Your task to perform on an android device: toggle translation in the chrome app Image 0: 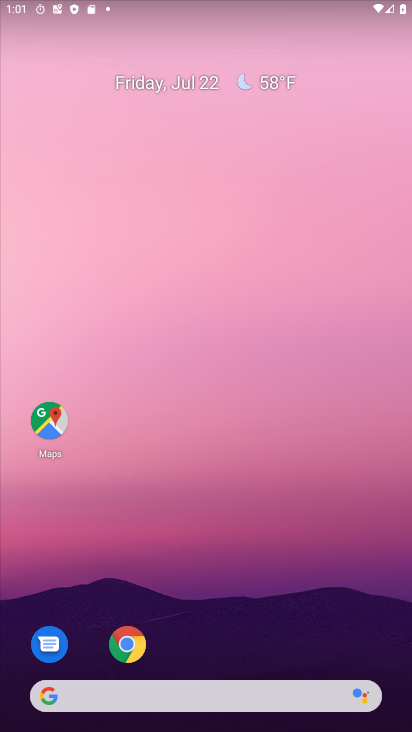
Step 0: drag from (181, 557) to (377, 134)
Your task to perform on an android device: toggle translation in the chrome app Image 1: 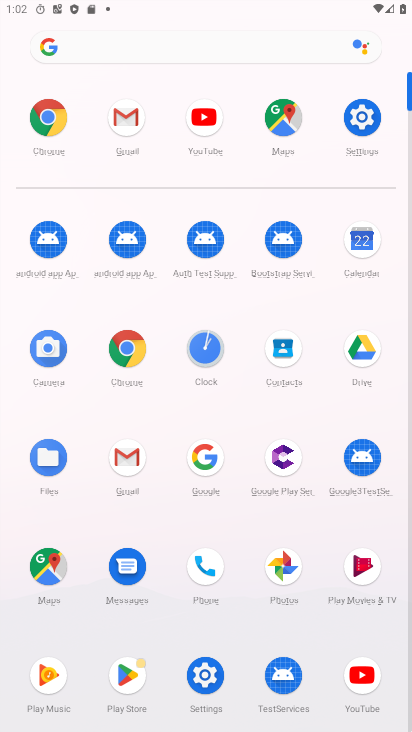
Step 1: click (117, 359)
Your task to perform on an android device: toggle translation in the chrome app Image 2: 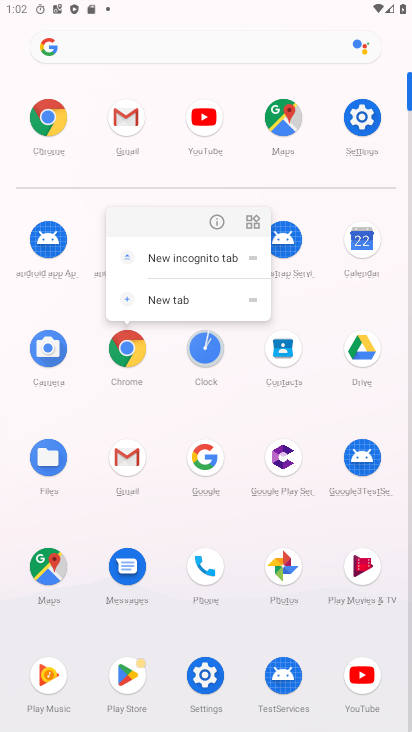
Step 2: click (207, 217)
Your task to perform on an android device: toggle translation in the chrome app Image 3: 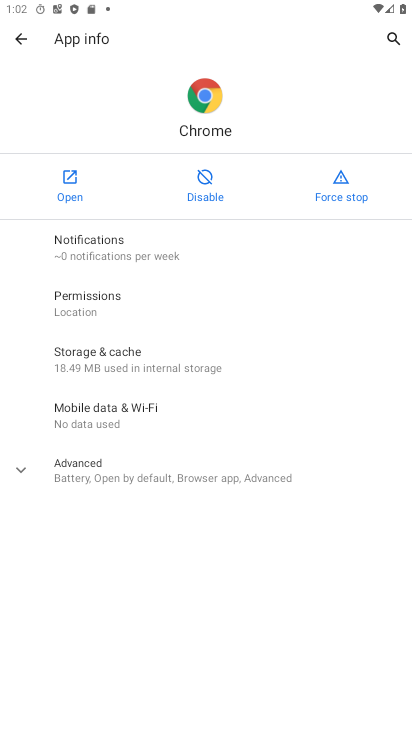
Step 3: click (64, 190)
Your task to perform on an android device: toggle translation in the chrome app Image 4: 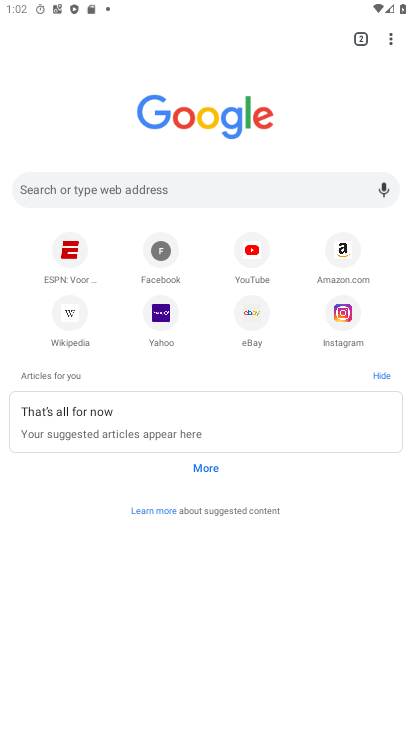
Step 4: click (393, 32)
Your task to perform on an android device: toggle translation in the chrome app Image 5: 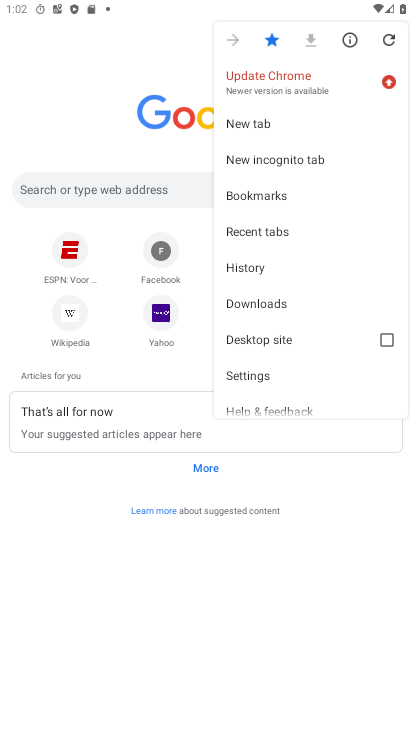
Step 5: click (254, 375)
Your task to perform on an android device: toggle translation in the chrome app Image 6: 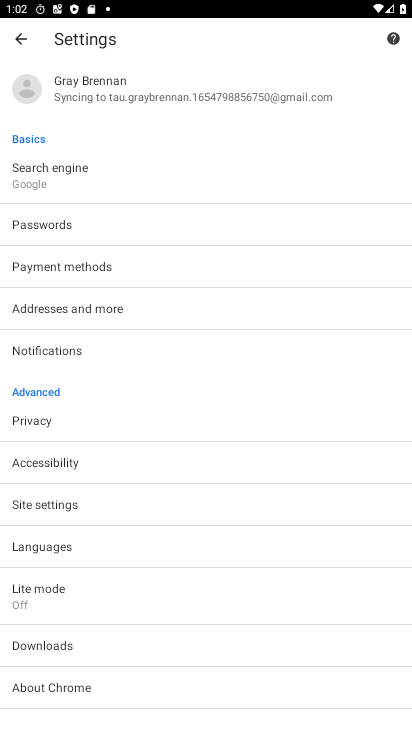
Step 6: click (86, 541)
Your task to perform on an android device: toggle translation in the chrome app Image 7: 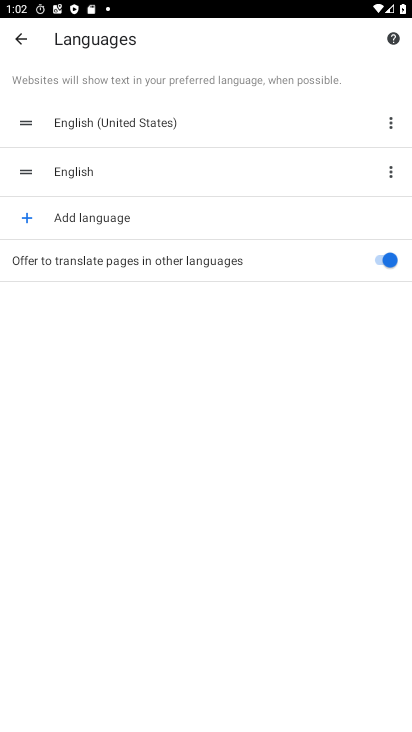
Step 7: click (379, 250)
Your task to perform on an android device: toggle translation in the chrome app Image 8: 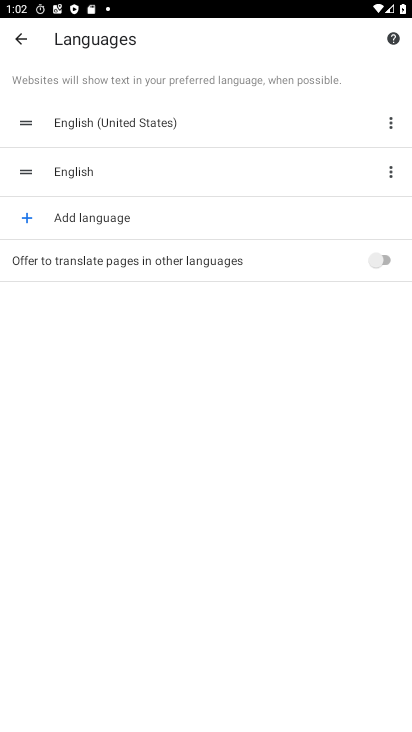
Step 8: task complete